Your task to perform on an android device: toggle wifi Image 0: 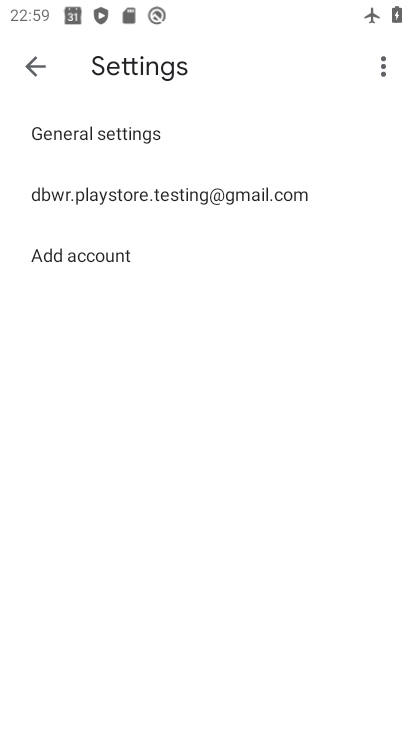
Step 0: press home button
Your task to perform on an android device: toggle wifi Image 1: 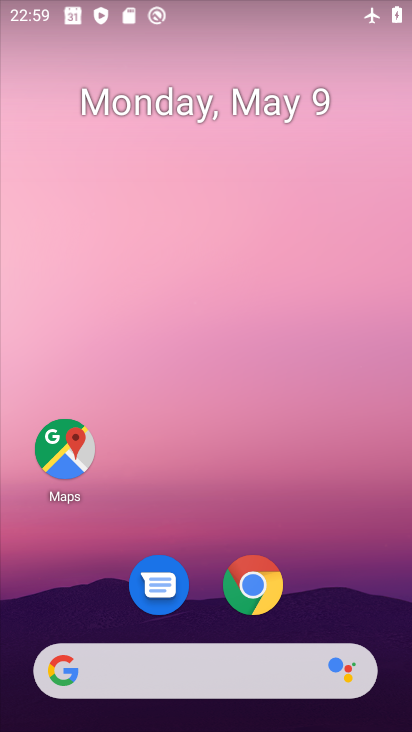
Step 1: drag from (273, 492) to (285, 0)
Your task to perform on an android device: toggle wifi Image 2: 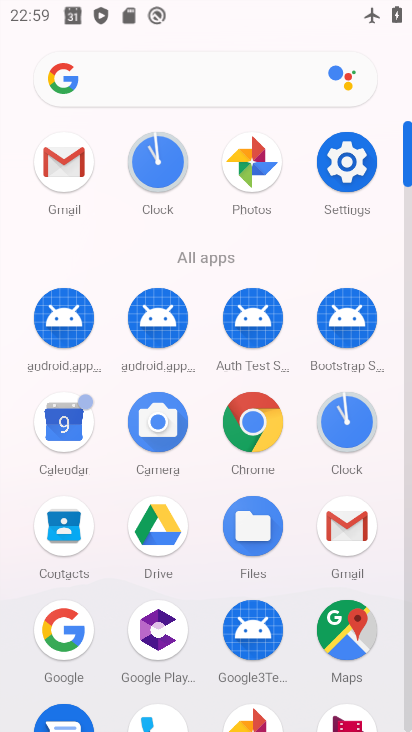
Step 2: click (334, 158)
Your task to perform on an android device: toggle wifi Image 3: 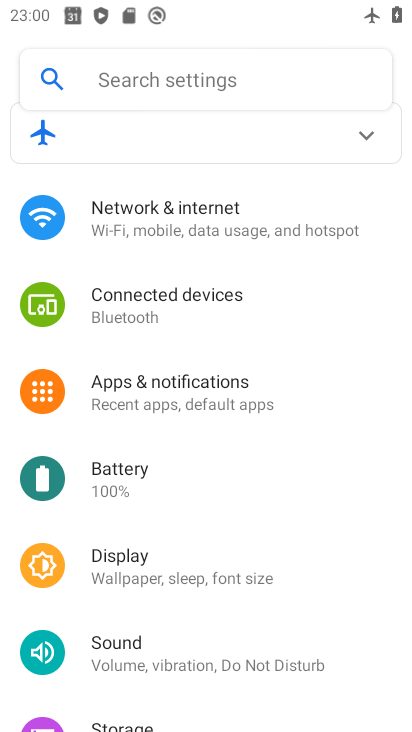
Step 3: click (299, 216)
Your task to perform on an android device: toggle wifi Image 4: 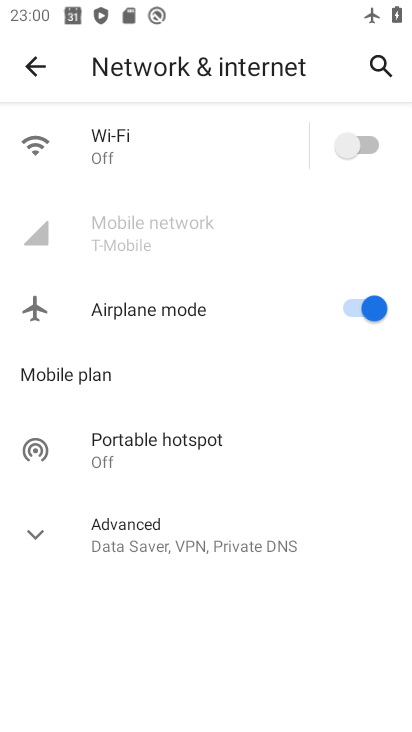
Step 4: click (366, 131)
Your task to perform on an android device: toggle wifi Image 5: 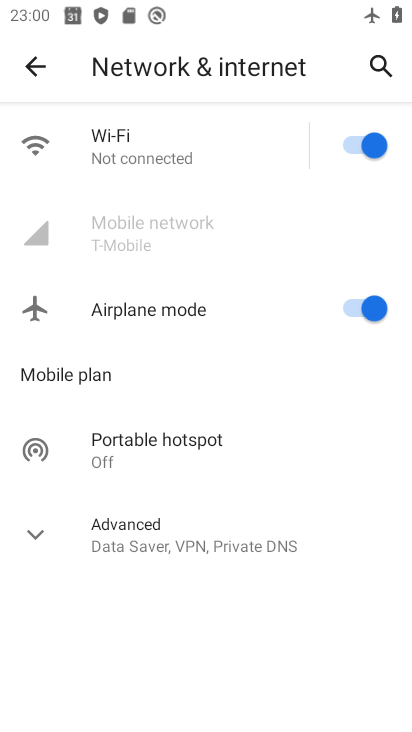
Step 5: task complete